Your task to perform on an android device: Open accessibility settings Image 0: 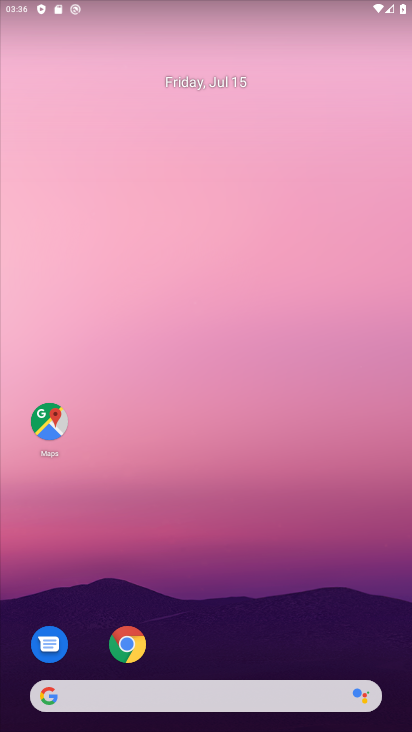
Step 0: drag from (339, 662) to (229, 205)
Your task to perform on an android device: Open accessibility settings Image 1: 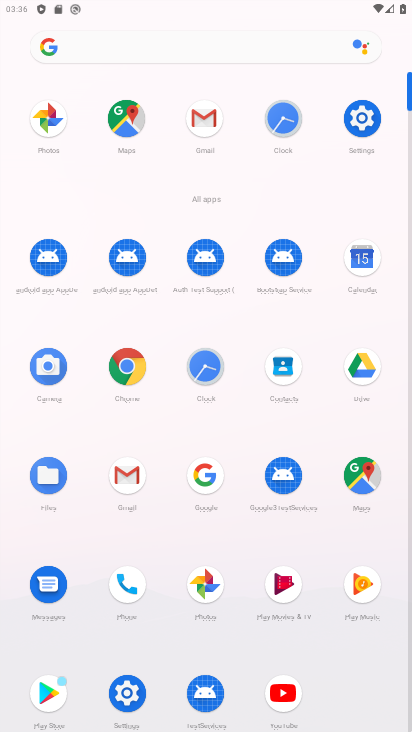
Step 1: click (357, 125)
Your task to perform on an android device: Open accessibility settings Image 2: 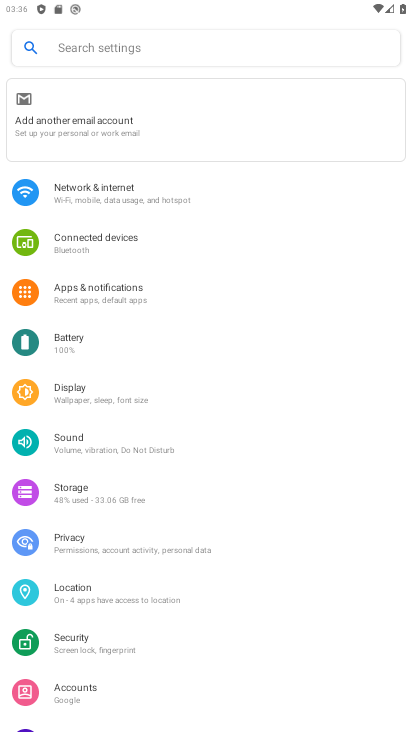
Step 2: drag from (268, 684) to (183, 350)
Your task to perform on an android device: Open accessibility settings Image 3: 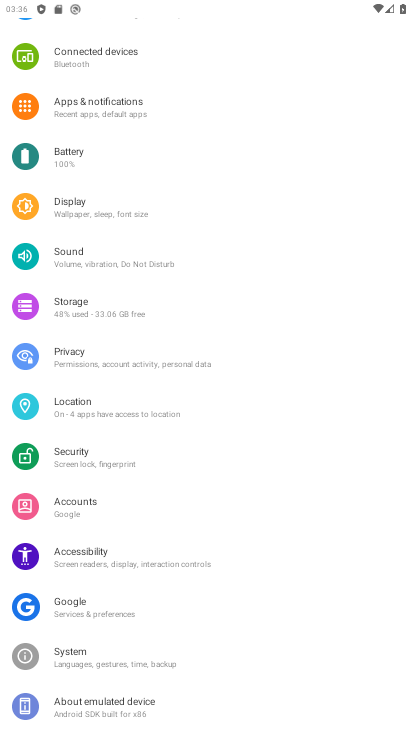
Step 3: click (188, 548)
Your task to perform on an android device: Open accessibility settings Image 4: 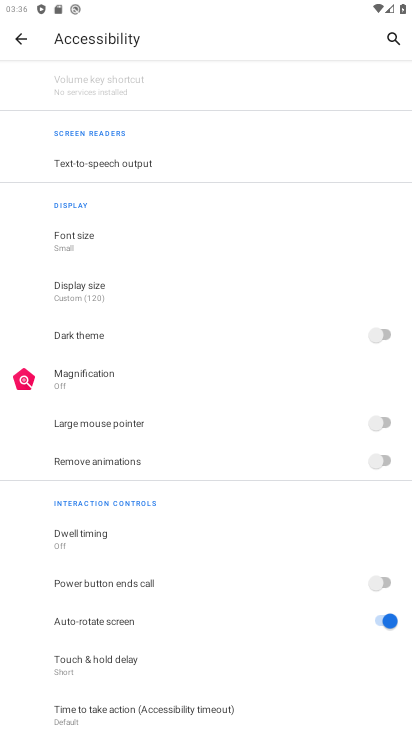
Step 4: task complete